Your task to perform on an android device: turn on bluetooth scan Image 0: 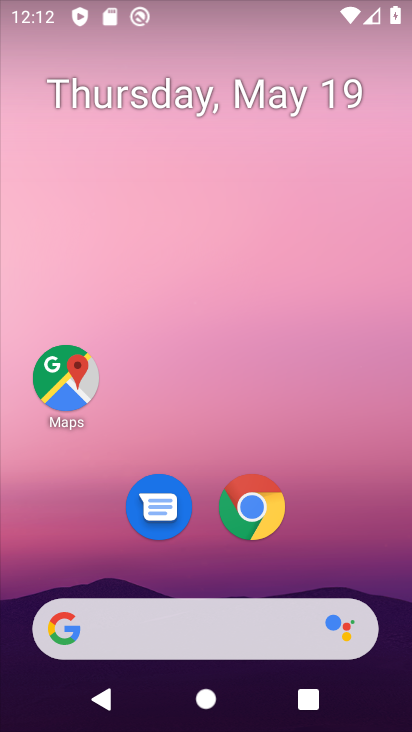
Step 0: drag from (232, 562) to (295, 168)
Your task to perform on an android device: turn on bluetooth scan Image 1: 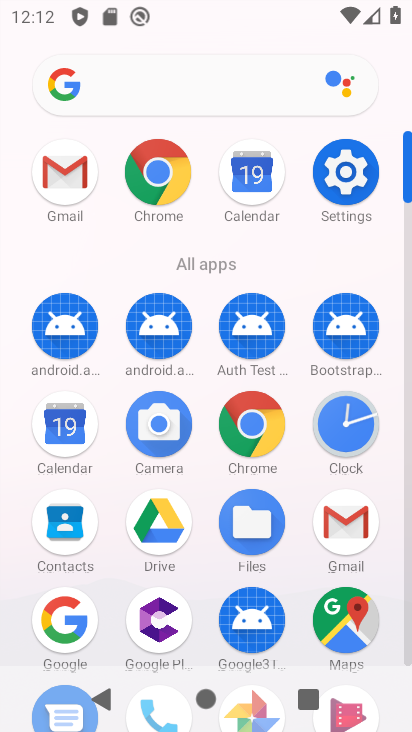
Step 1: click (357, 181)
Your task to perform on an android device: turn on bluetooth scan Image 2: 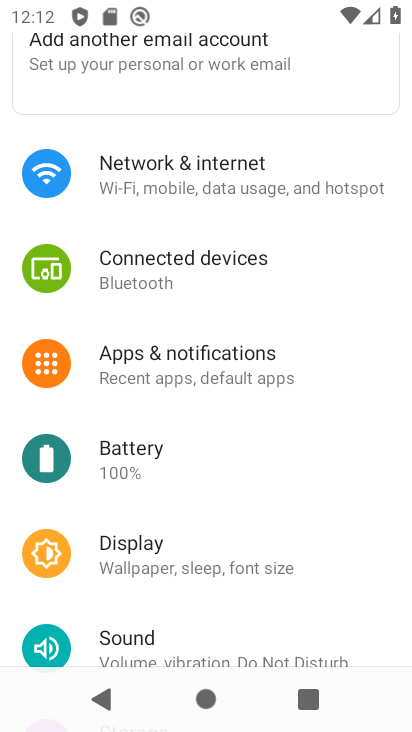
Step 2: drag from (262, 591) to (274, 339)
Your task to perform on an android device: turn on bluetooth scan Image 3: 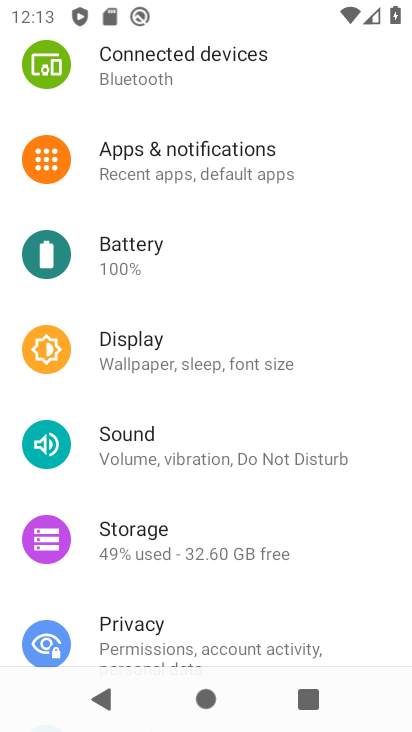
Step 3: drag from (212, 582) to (214, 400)
Your task to perform on an android device: turn on bluetooth scan Image 4: 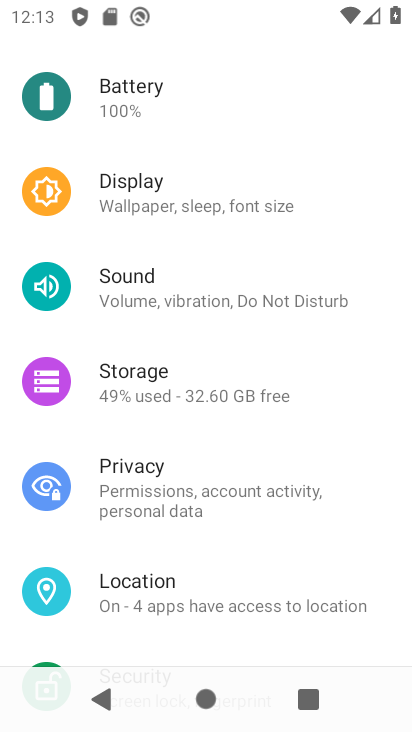
Step 4: click (150, 602)
Your task to perform on an android device: turn on bluetooth scan Image 5: 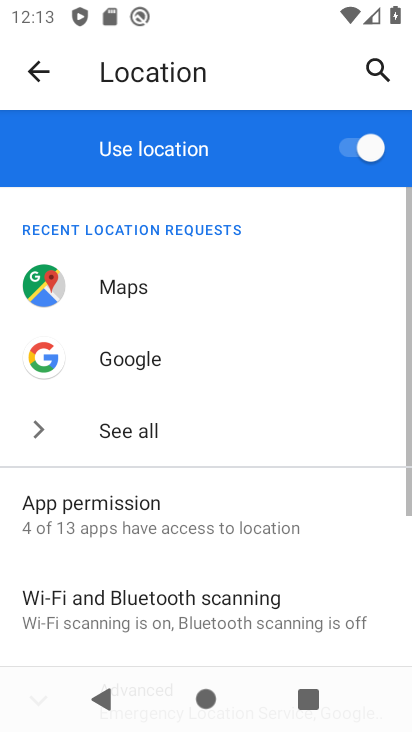
Step 5: drag from (167, 550) to (198, 380)
Your task to perform on an android device: turn on bluetooth scan Image 6: 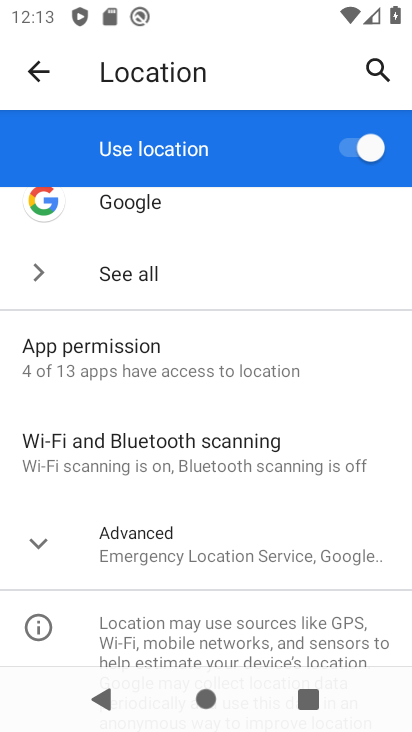
Step 6: click (197, 596)
Your task to perform on an android device: turn on bluetooth scan Image 7: 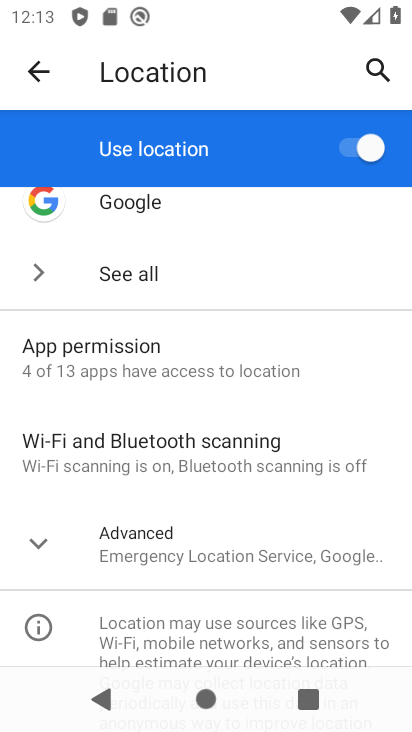
Step 7: click (208, 438)
Your task to perform on an android device: turn on bluetooth scan Image 8: 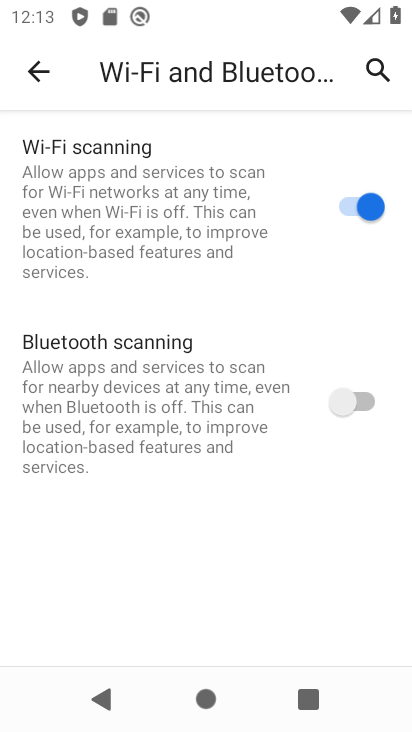
Step 8: click (376, 396)
Your task to perform on an android device: turn on bluetooth scan Image 9: 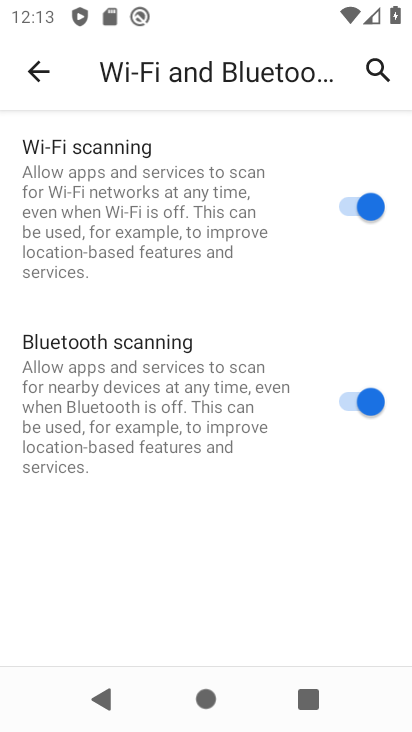
Step 9: task complete